Your task to perform on an android device: Turn on the flashlight Image 0: 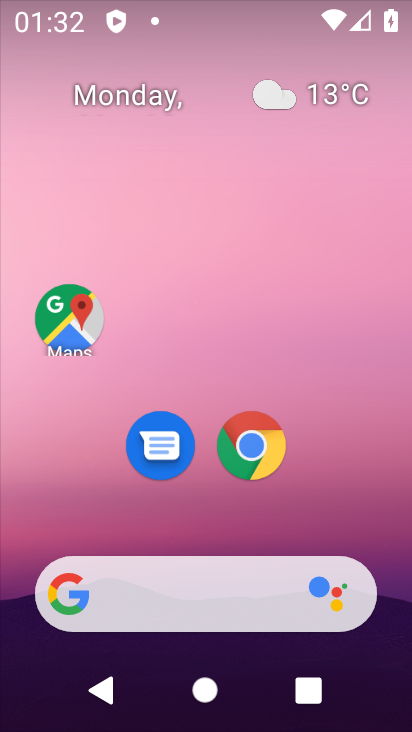
Step 0: drag from (283, 538) to (297, 48)
Your task to perform on an android device: Turn on the flashlight Image 1: 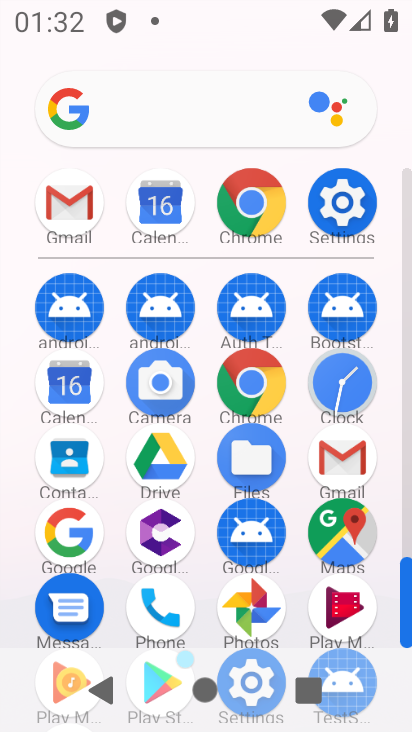
Step 1: click (342, 209)
Your task to perform on an android device: Turn on the flashlight Image 2: 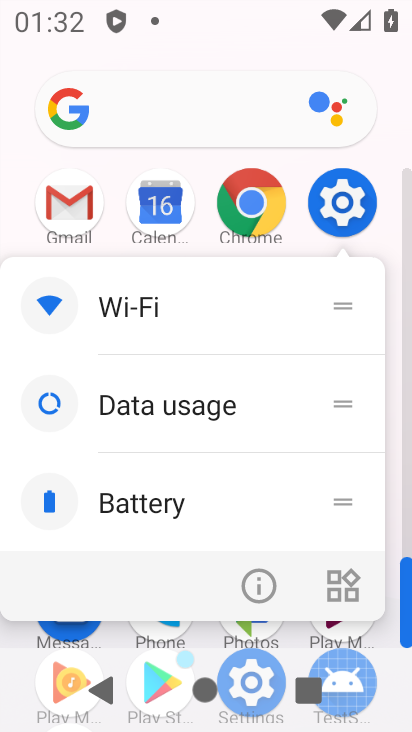
Step 2: click (347, 205)
Your task to perform on an android device: Turn on the flashlight Image 3: 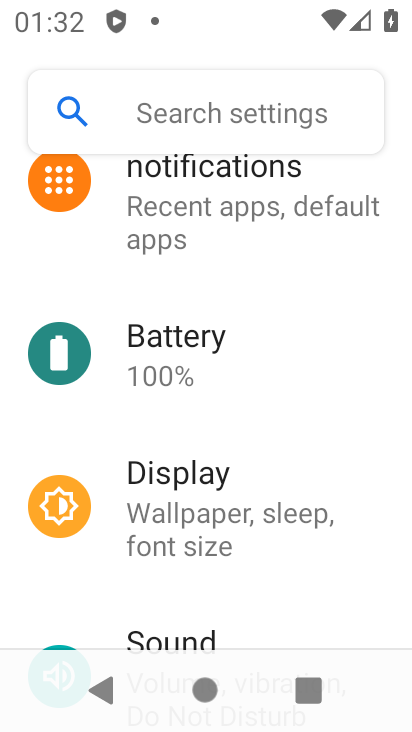
Step 3: task complete